Your task to perform on an android device: Open settings on Google Maps Image 0: 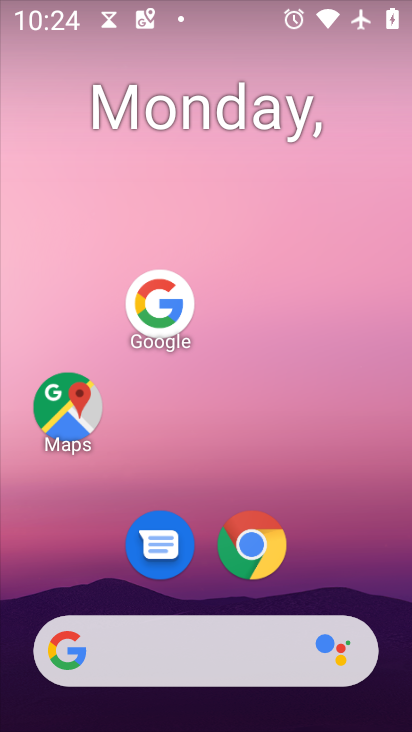
Step 0: press home button
Your task to perform on an android device: Open settings on Google Maps Image 1: 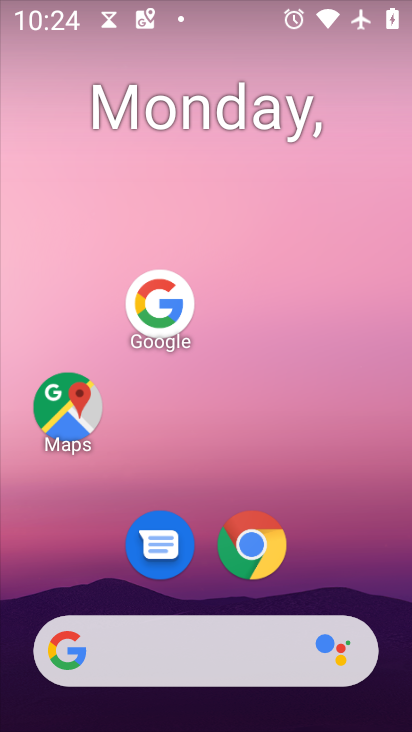
Step 1: click (72, 409)
Your task to perform on an android device: Open settings on Google Maps Image 2: 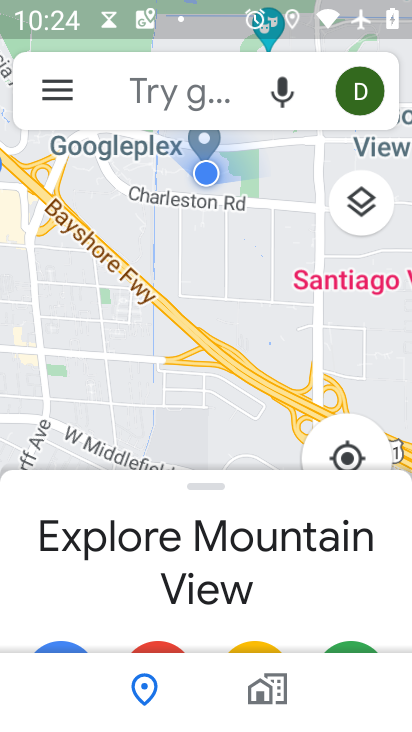
Step 2: click (65, 101)
Your task to perform on an android device: Open settings on Google Maps Image 3: 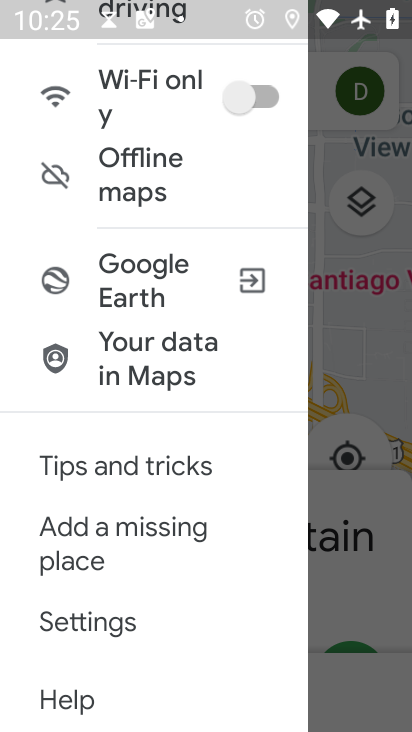
Step 3: click (118, 632)
Your task to perform on an android device: Open settings on Google Maps Image 4: 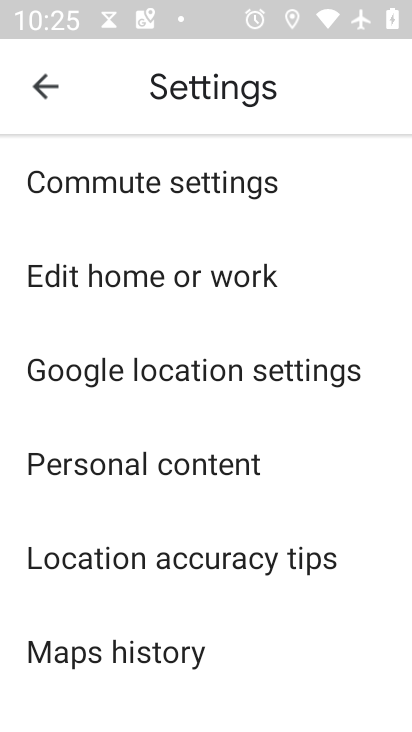
Step 4: task complete